Your task to perform on an android device: Go to Reddit.com Image 0: 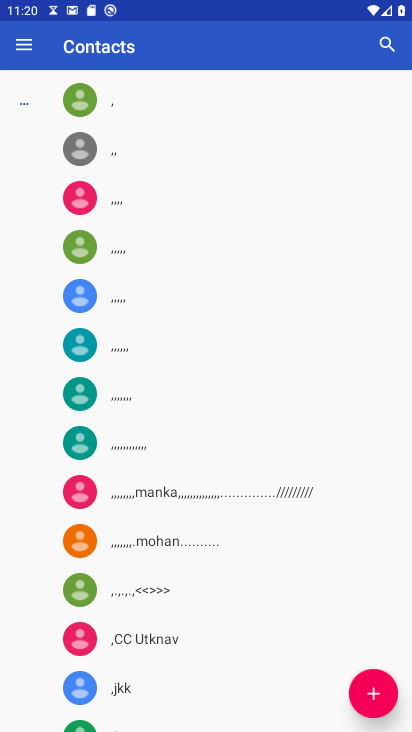
Step 0: press home button
Your task to perform on an android device: Go to Reddit.com Image 1: 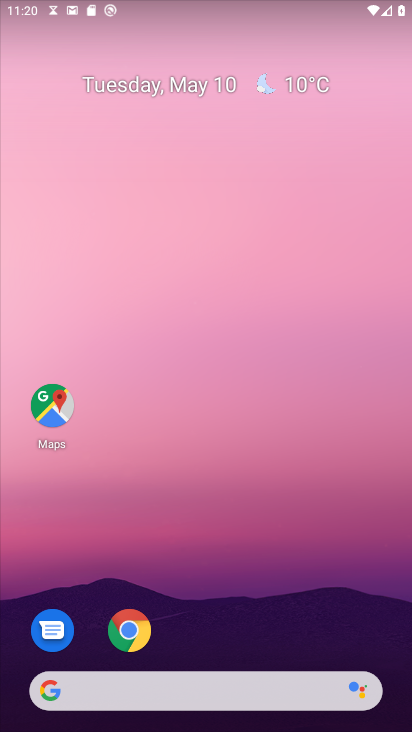
Step 1: click (128, 638)
Your task to perform on an android device: Go to Reddit.com Image 2: 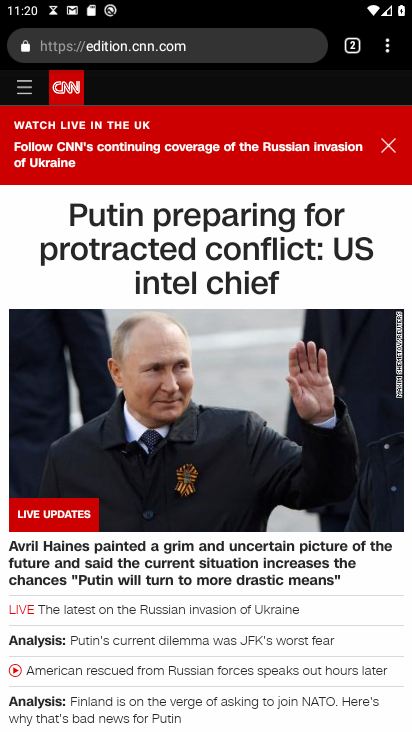
Step 2: click (355, 44)
Your task to perform on an android device: Go to Reddit.com Image 3: 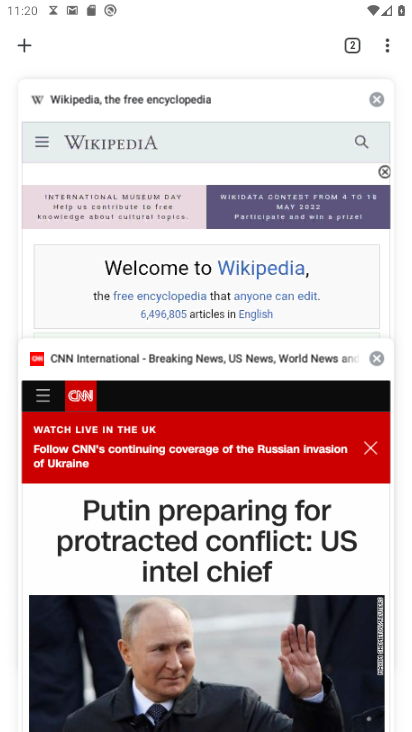
Step 3: click (24, 42)
Your task to perform on an android device: Go to Reddit.com Image 4: 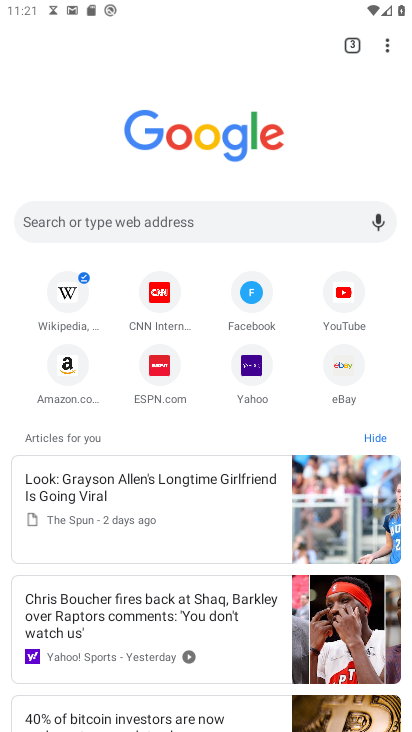
Step 4: click (240, 231)
Your task to perform on an android device: Go to Reddit.com Image 5: 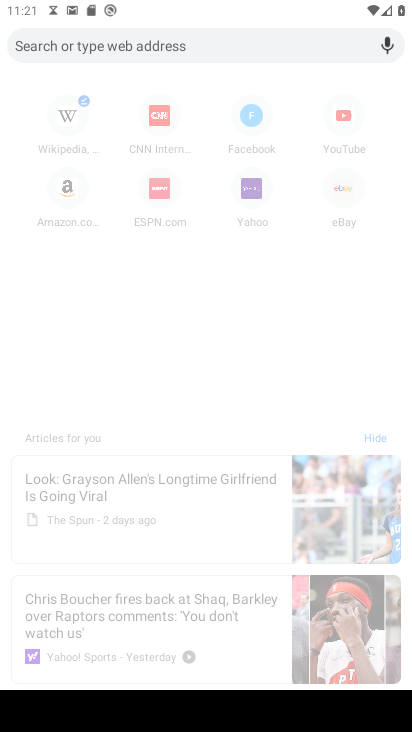
Step 5: type "Reddit.com"
Your task to perform on an android device: Go to Reddit.com Image 6: 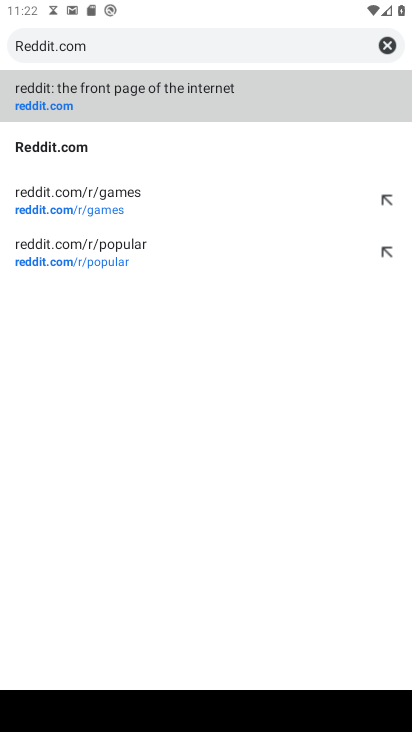
Step 6: click (92, 105)
Your task to perform on an android device: Go to Reddit.com Image 7: 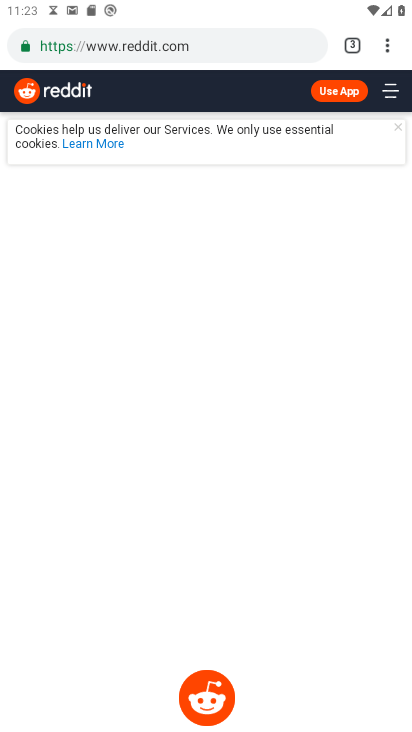
Step 7: task complete